Your task to perform on an android device: check storage Image 0: 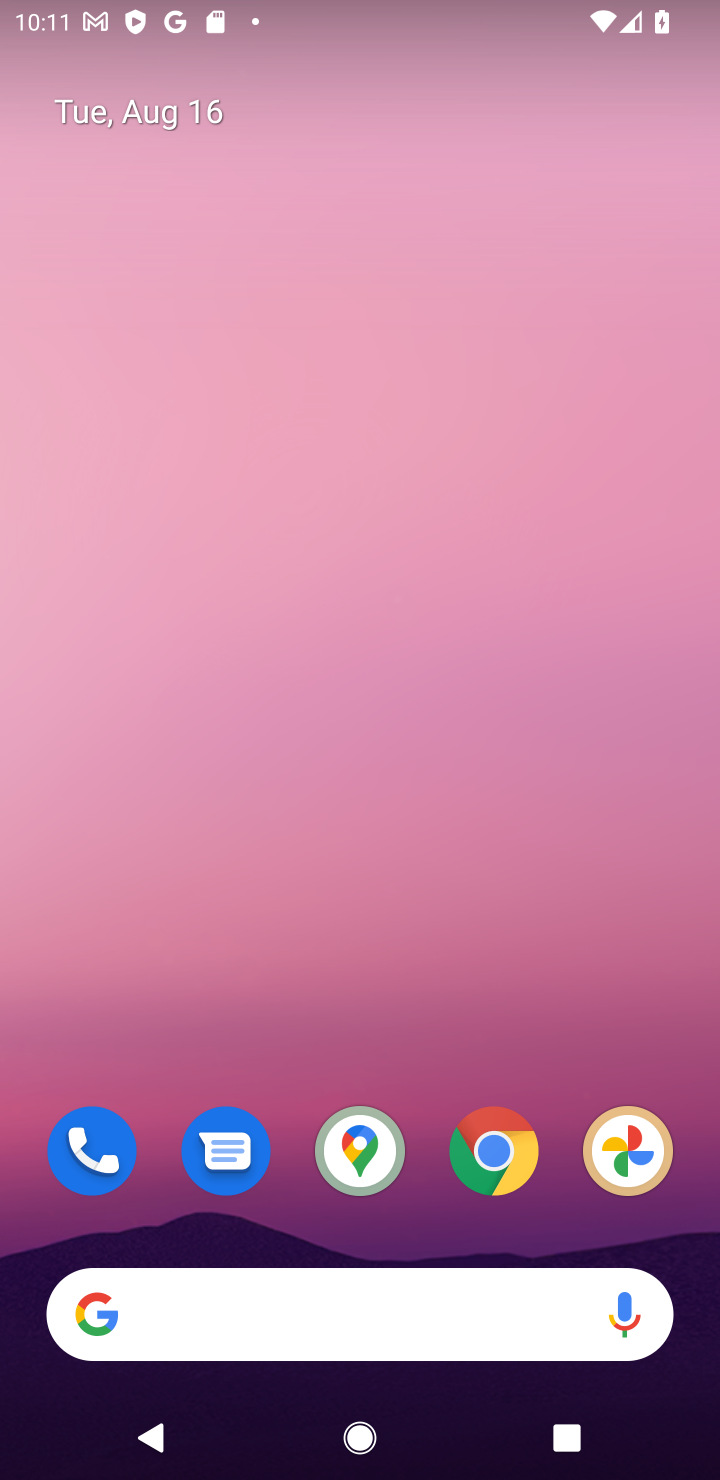
Step 0: drag from (414, 1055) to (286, 175)
Your task to perform on an android device: check storage Image 1: 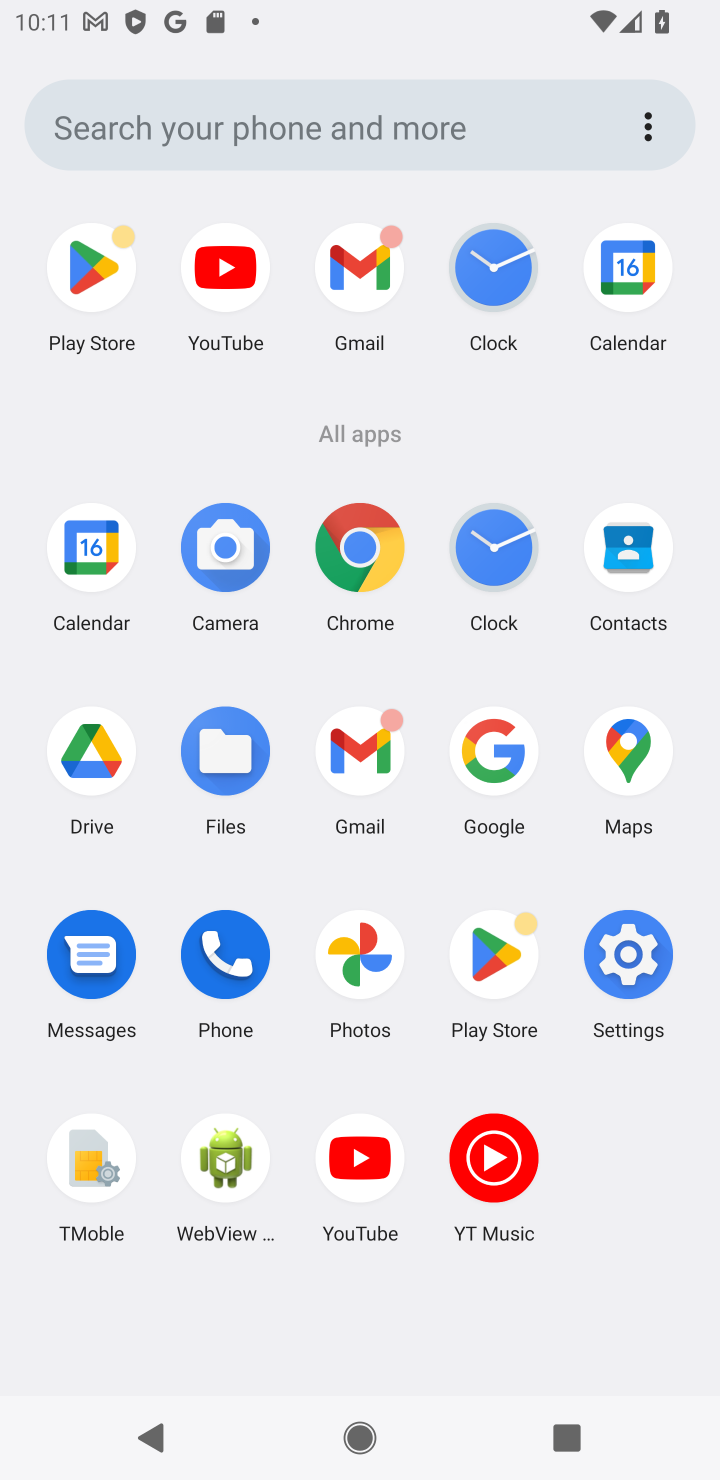
Step 1: click (639, 957)
Your task to perform on an android device: check storage Image 2: 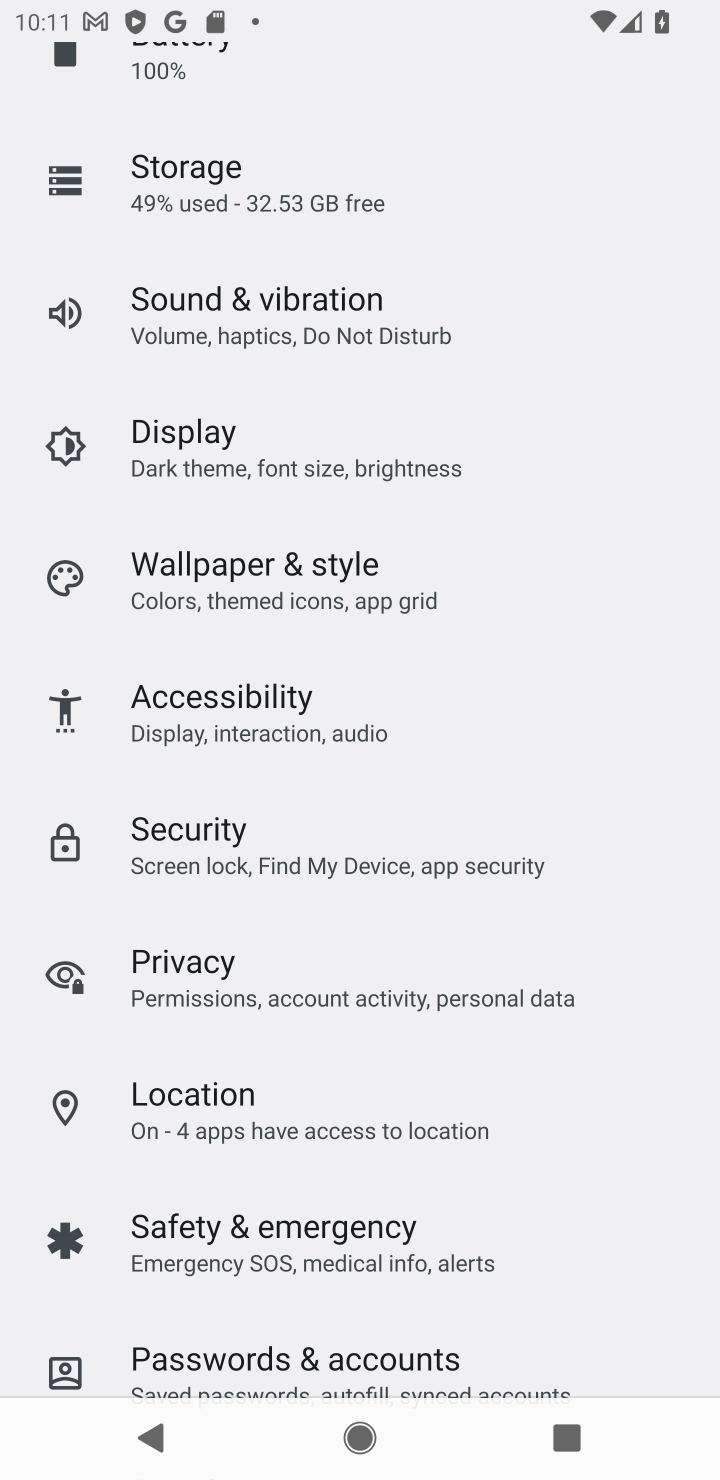
Step 2: click (175, 157)
Your task to perform on an android device: check storage Image 3: 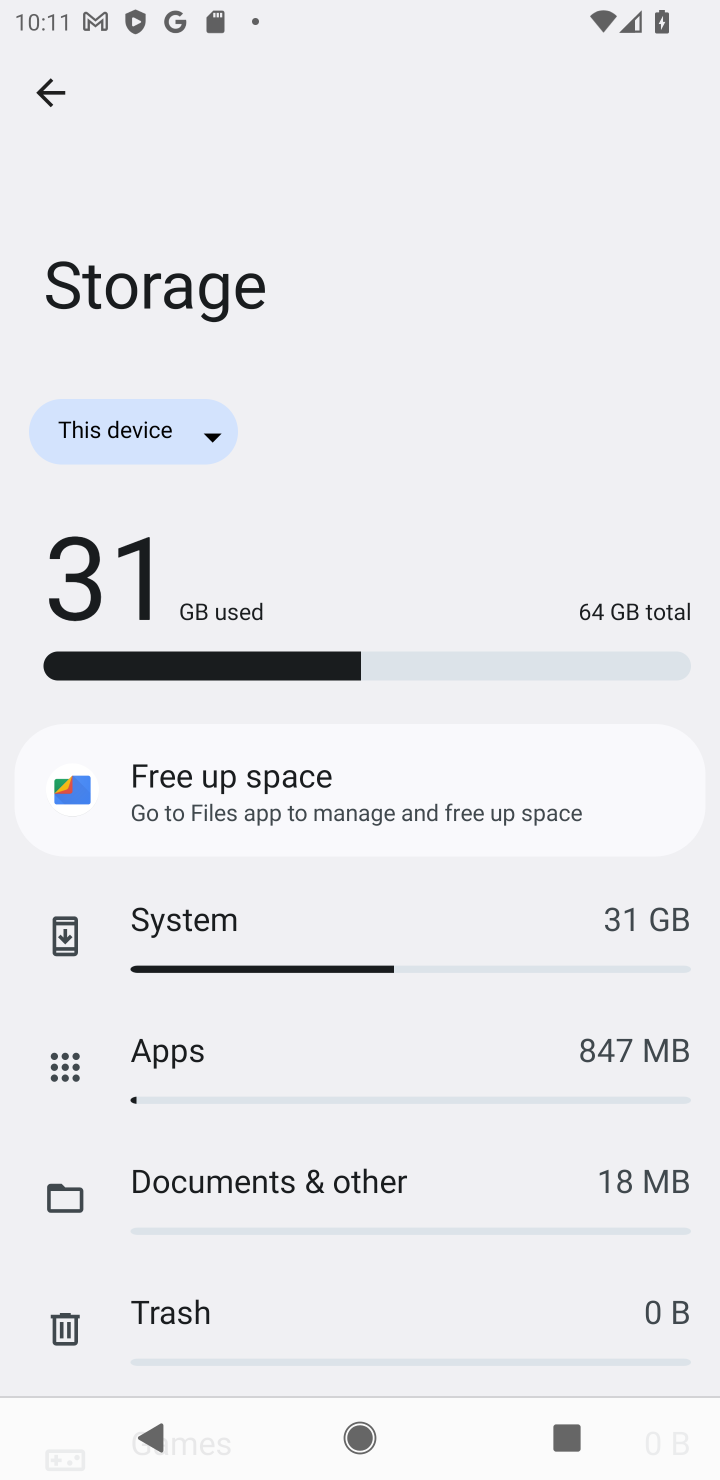
Step 3: task complete